Your task to perform on an android device: Open CNN.com Image 0: 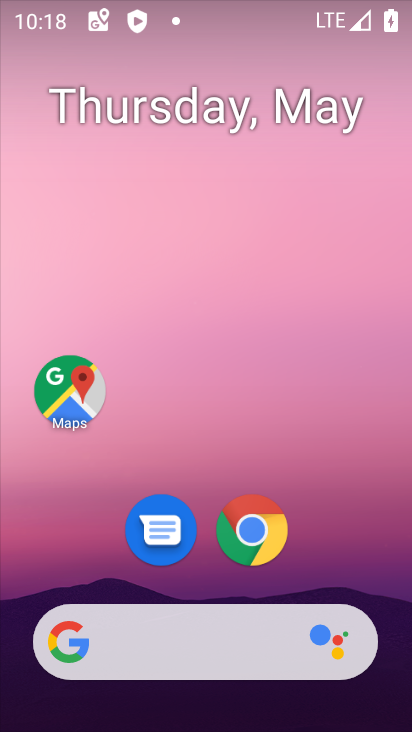
Step 0: click (126, 653)
Your task to perform on an android device: Open CNN.com Image 1: 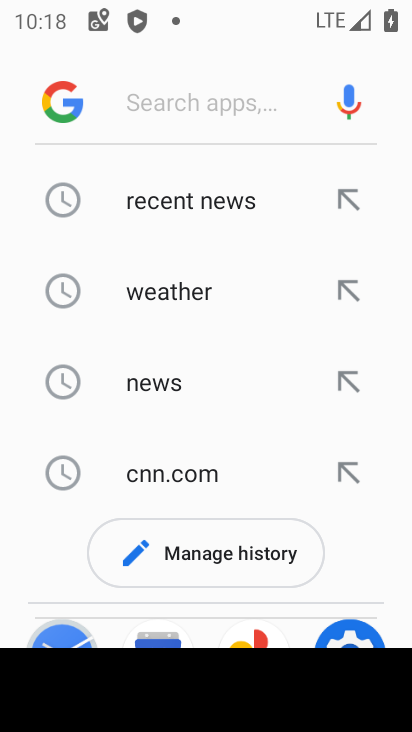
Step 1: click (220, 476)
Your task to perform on an android device: Open CNN.com Image 2: 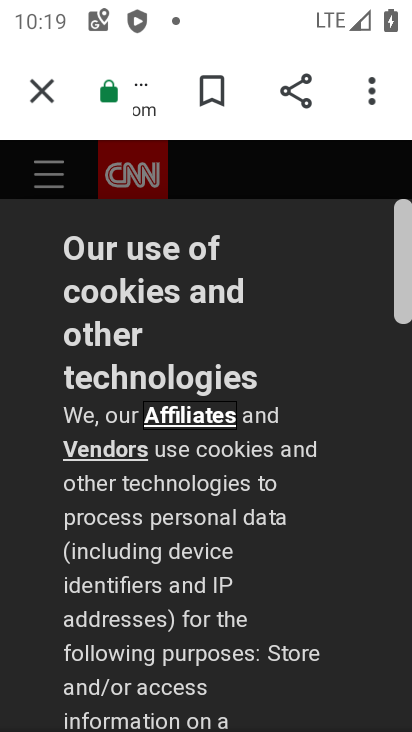
Step 2: task complete